Your task to perform on an android device: turn notification dots on Image 0: 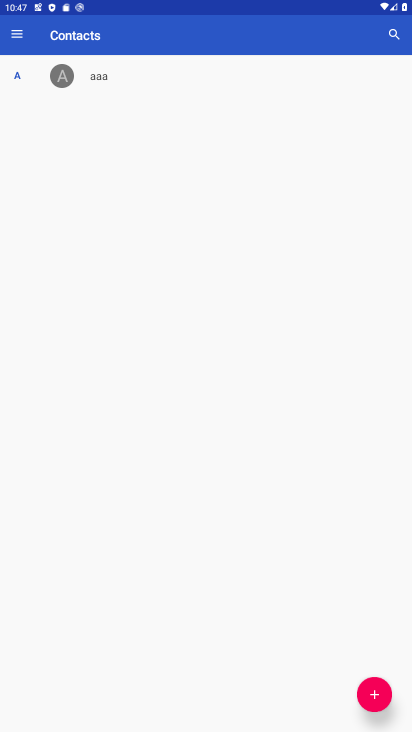
Step 0: press home button
Your task to perform on an android device: turn notification dots on Image 1: 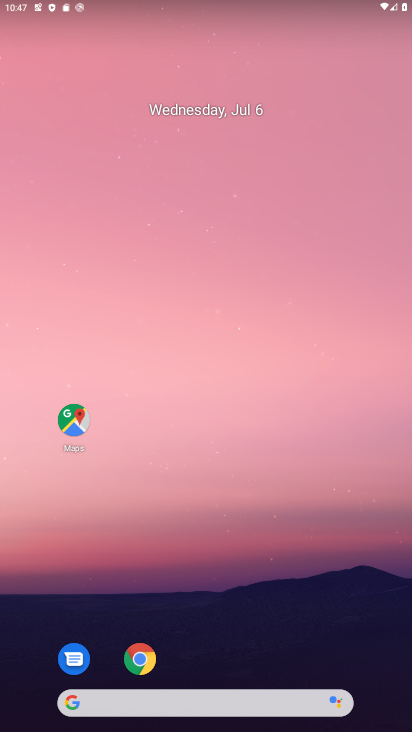
Step 1: drag from (230, 580) to (138, 121)
Your task to perform on an android device: turn notification dots on Image 2: 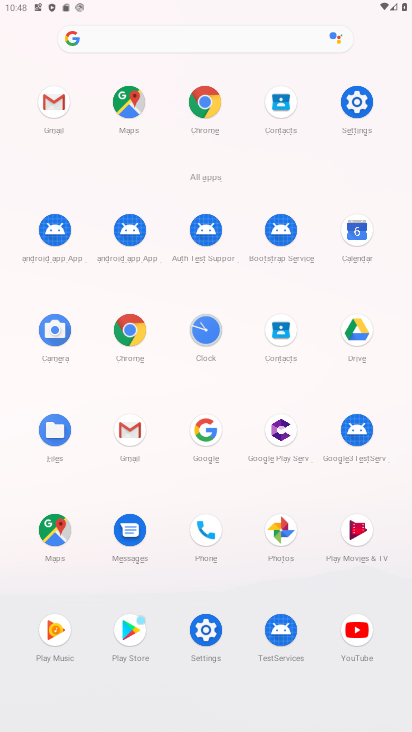
Step 2: click (357, 98)
Your task to perform on an android device: turn notification dots on Image 3: 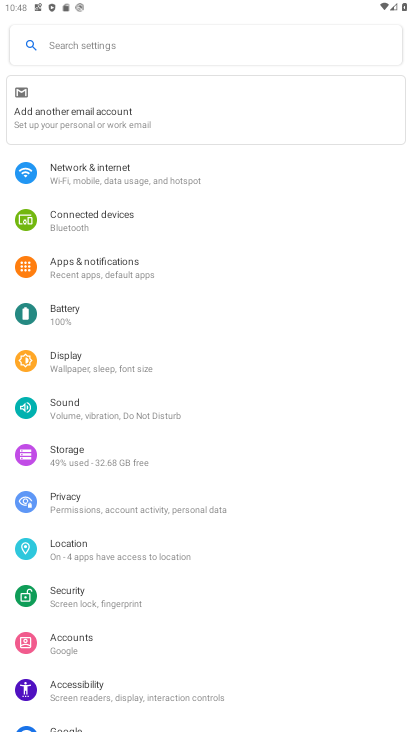
Step 3: click (121, 267)
Your task to perform on an android device: turn notification dots on Image 4: 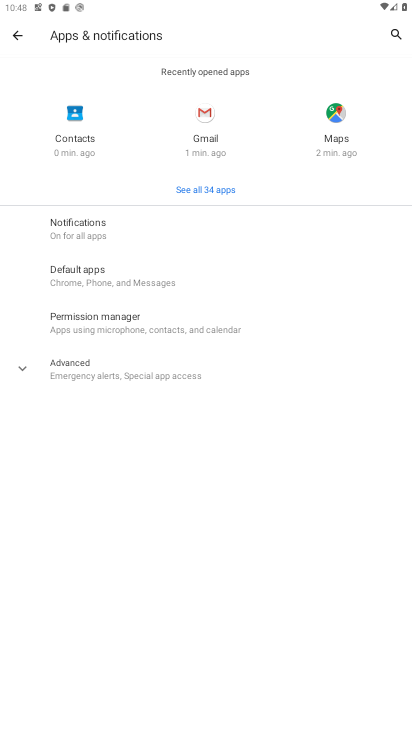
Step 4: click (82, 226)
Your task to perform on an android device: turn notification dots on Image 5: 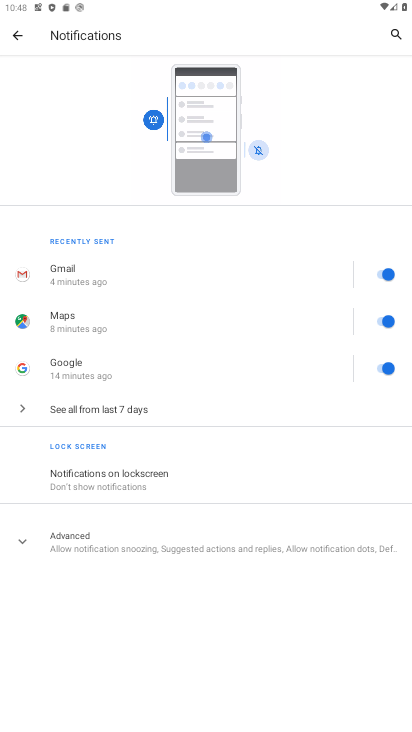
Step 5: click (68, 536)
Your task to perform on an android device: turn notification dots on Image 6: 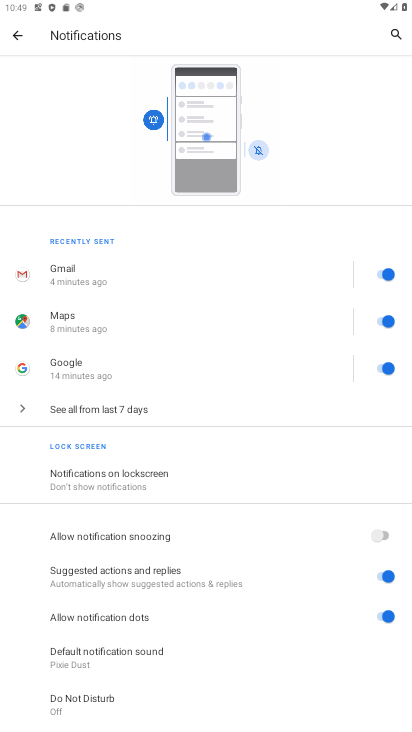
Step 6: task complete